Your task to perform on an android device: Play the new Ed Sheeran video on YouTube Image 0: 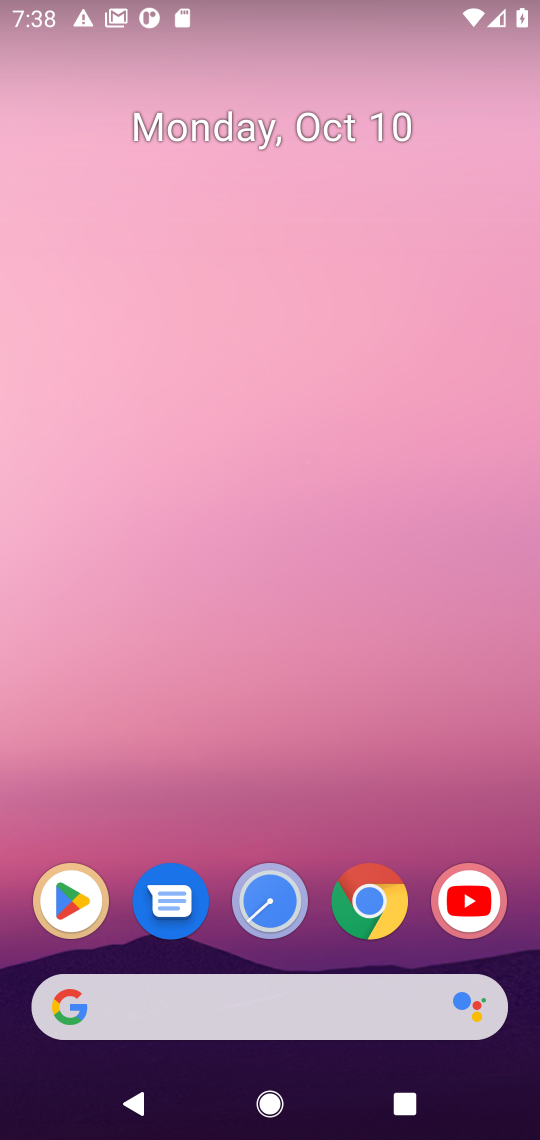
Step 0: drag from (279, 663) to (255, 306)
Your task to perform on an android device: Play the new Ed Sheeran video on YouTube Image 1: 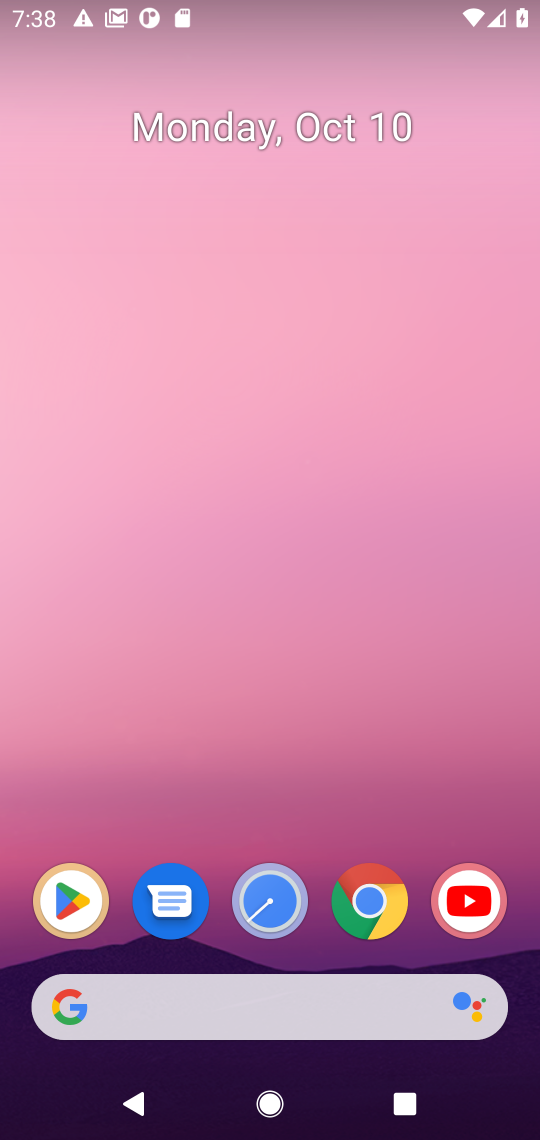
Step 1: drag from (334, 1063) to (236, 120)
Your task to perform on an android device: Play the new Ed Sheeran video on YouTube Image 2: 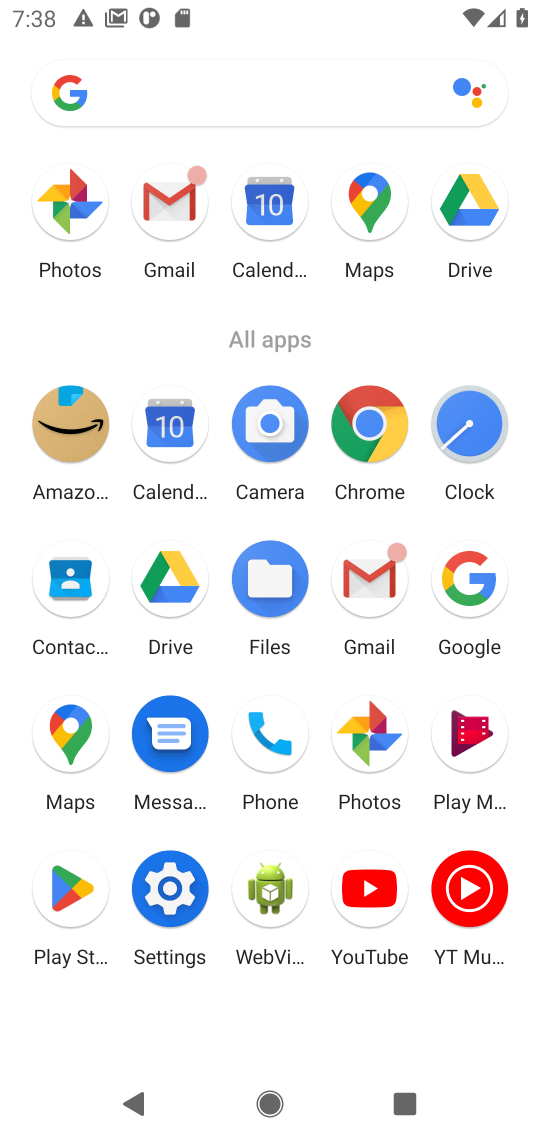
Step 2: click (390, 903)
Your task to perform on an android device: Play the new Ed Sheeran video on YouTube Image 3: 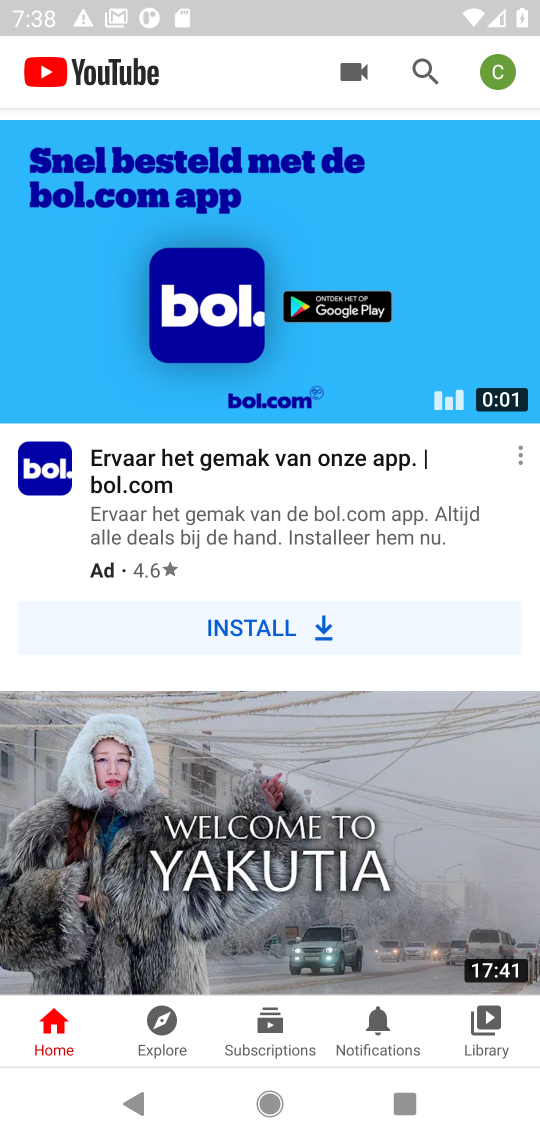
Step 3: type "new Ed Sheeran video"
Your task to perform on an android device: Play the new Ed Sheeran video on YouTube Image 4: 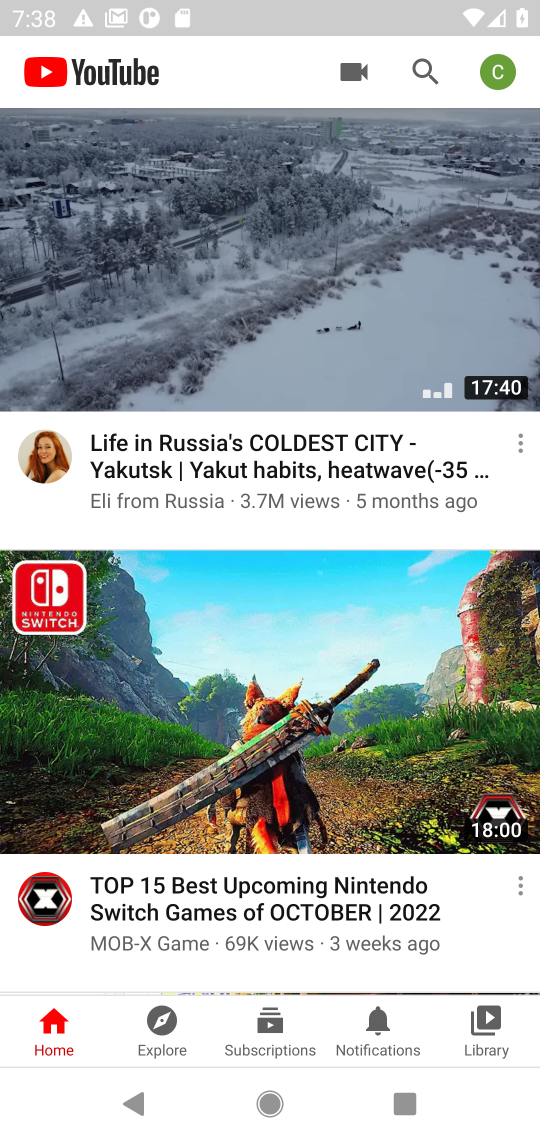
Step 4: click (421, 59)
Your task to perform on an android device: Play the new Ed Sheeran video on YouTube Image 5: 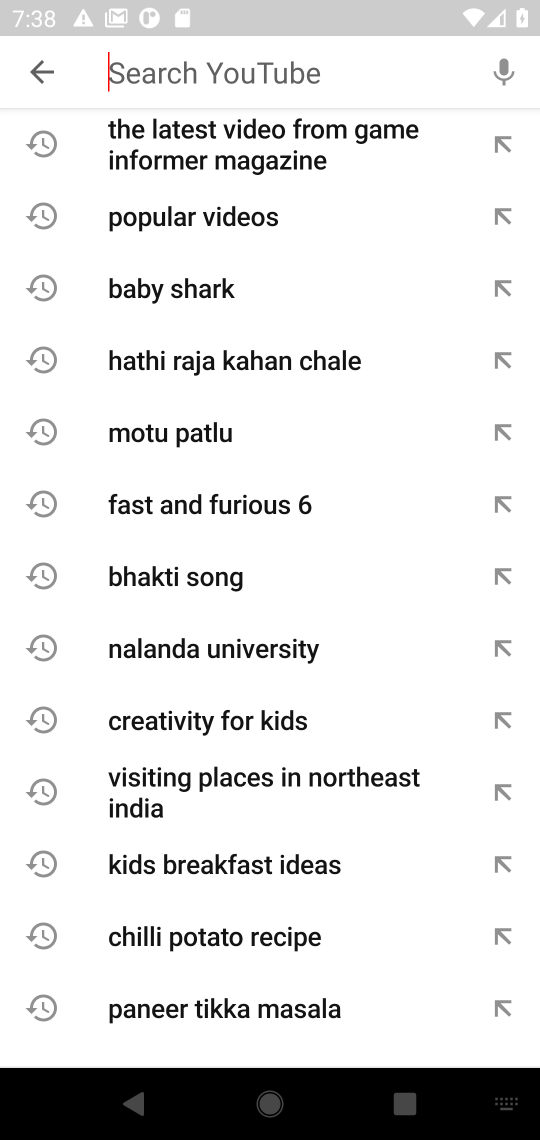
Step 5: type "new Ed Sheeran video"
Your task to perform on an android device: Play the new Ed Sheeran video on YouTube Image 6: 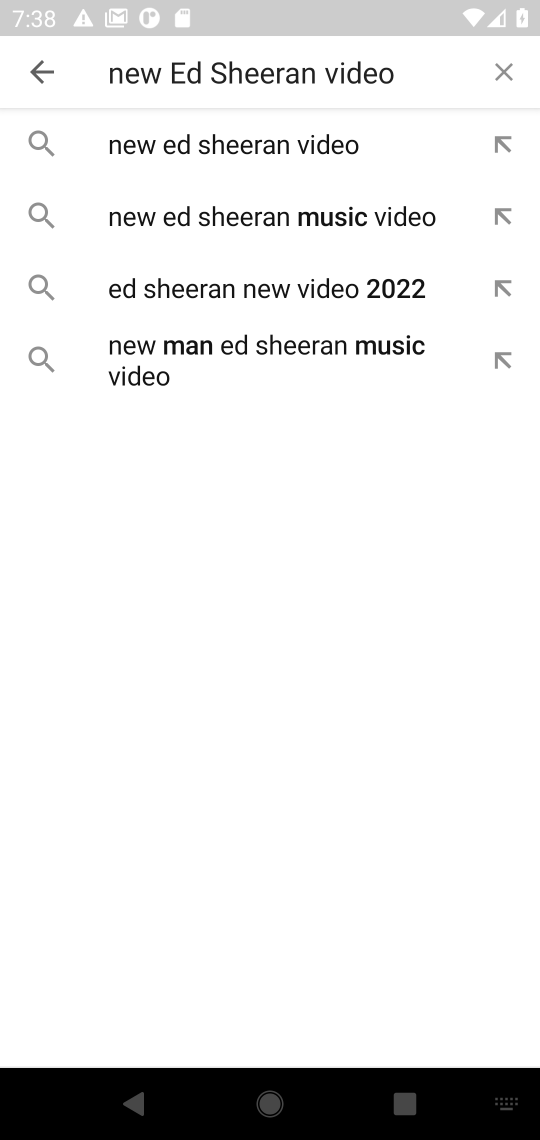
Step 6: type ""
Your task to perform on an android device: Play the new Ed Sheeran video on YouTube Image 7: 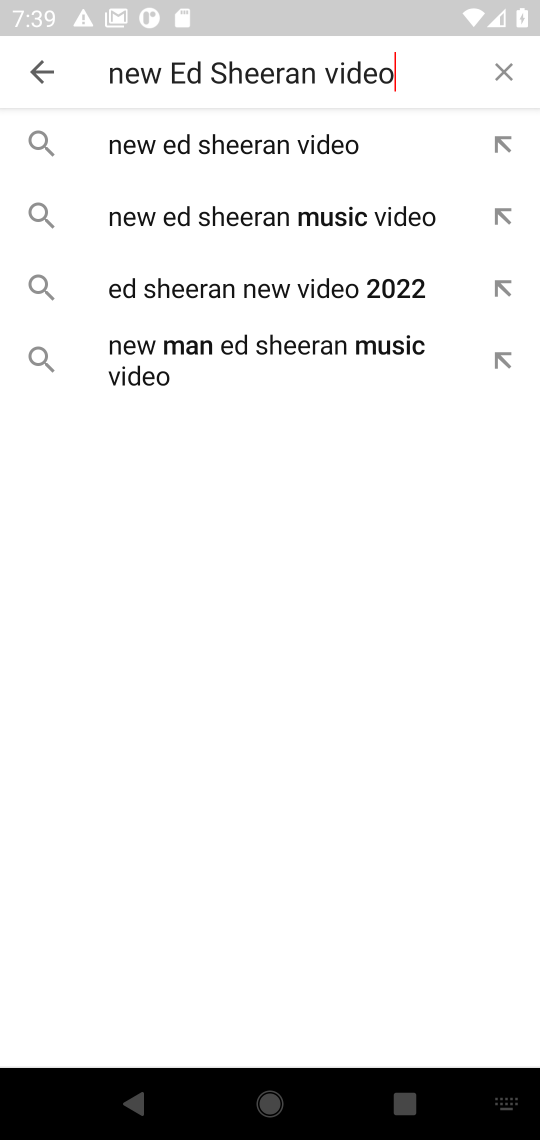
Step 7: click (271, 158)
Your task to perform on an android device: Play the new Ed Sheeran video on YouTube Image 8: 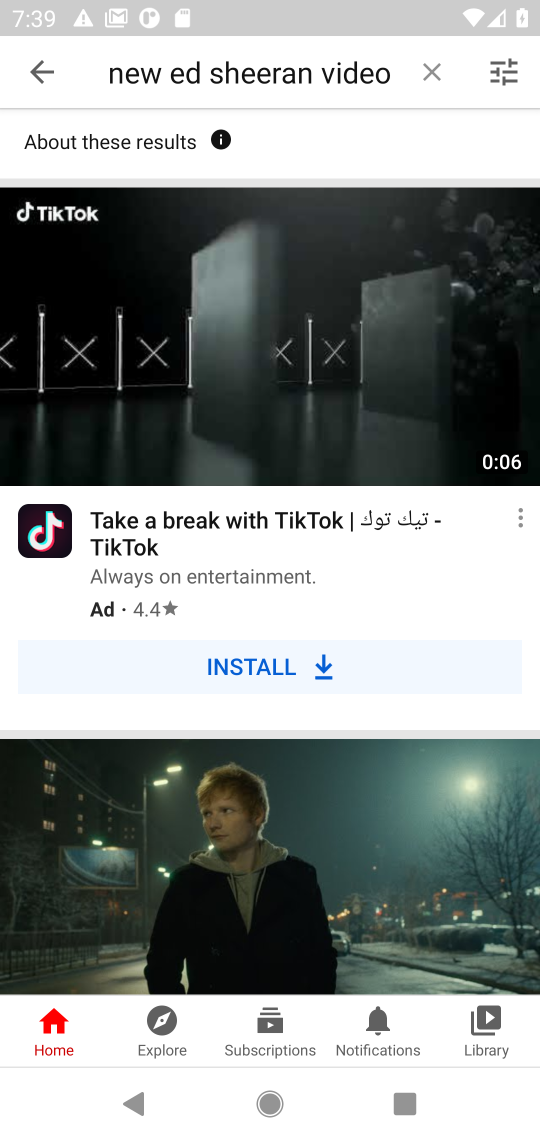
Step 8: drag from (362, 726) to (350, 383)
Your task to perform on an android device: Play the new Ed Sheeran video on YouTube Image 9: 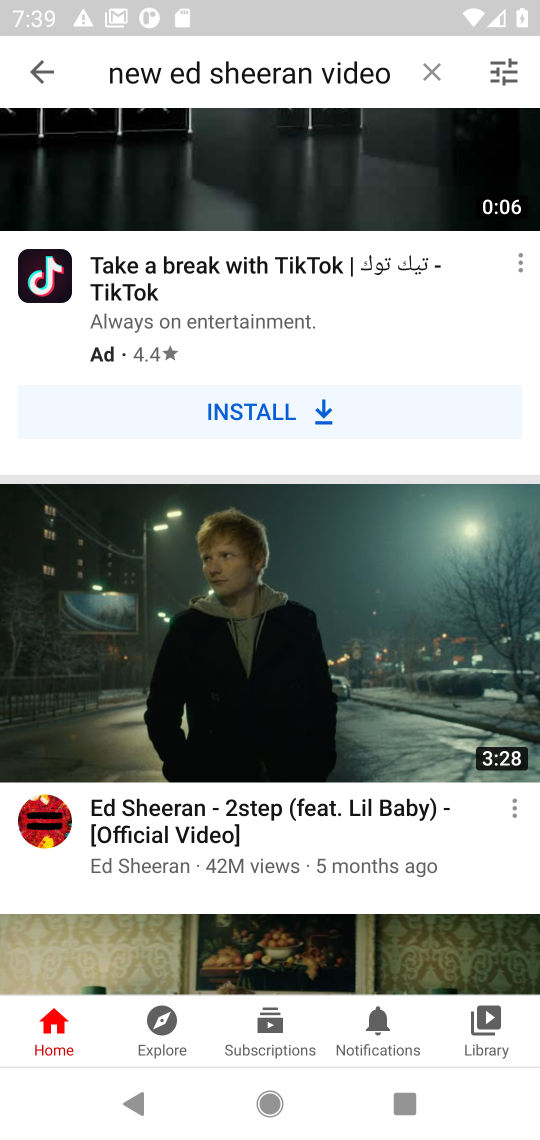
Step 9: click (192, 806)
Your task to perform on an android device: Play the new Ed Sheeran video on YouTube Image 10: 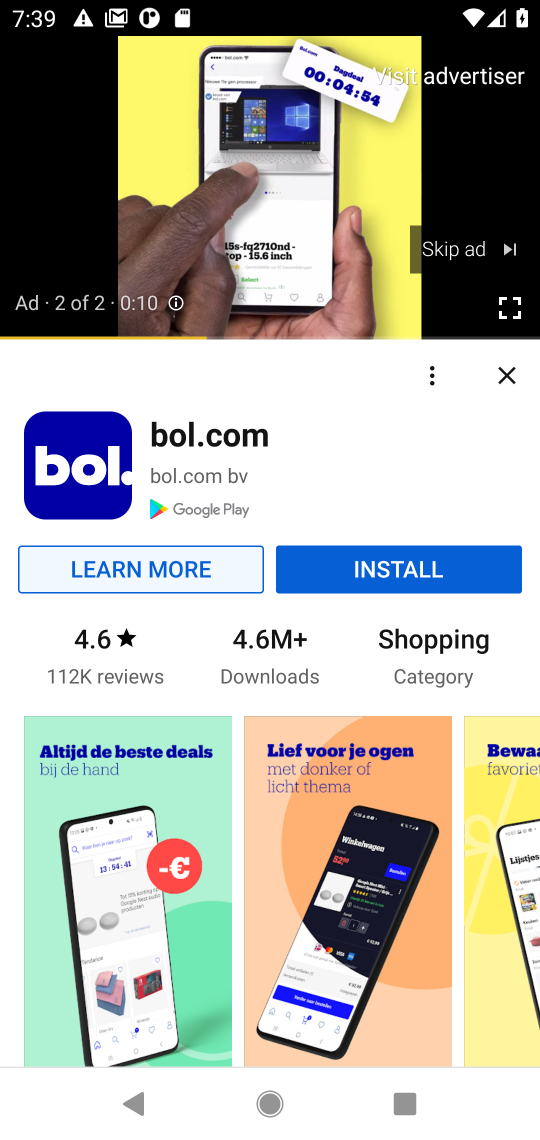
Step 10: drag from (237, 865) to (233, 767)
Your task to perform on an android device: Play the new Ed Sheeran video on YouTube Image 11: 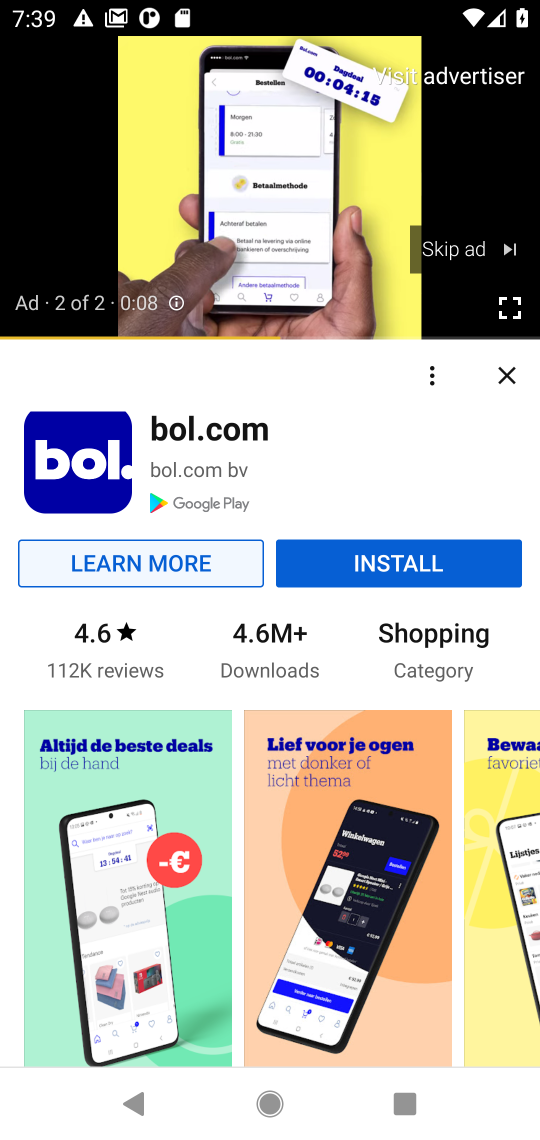
Step 11: click (503, 376)
Your task to perform on an android device: Play the new Ed Sheeran video on YouTube Image 12: 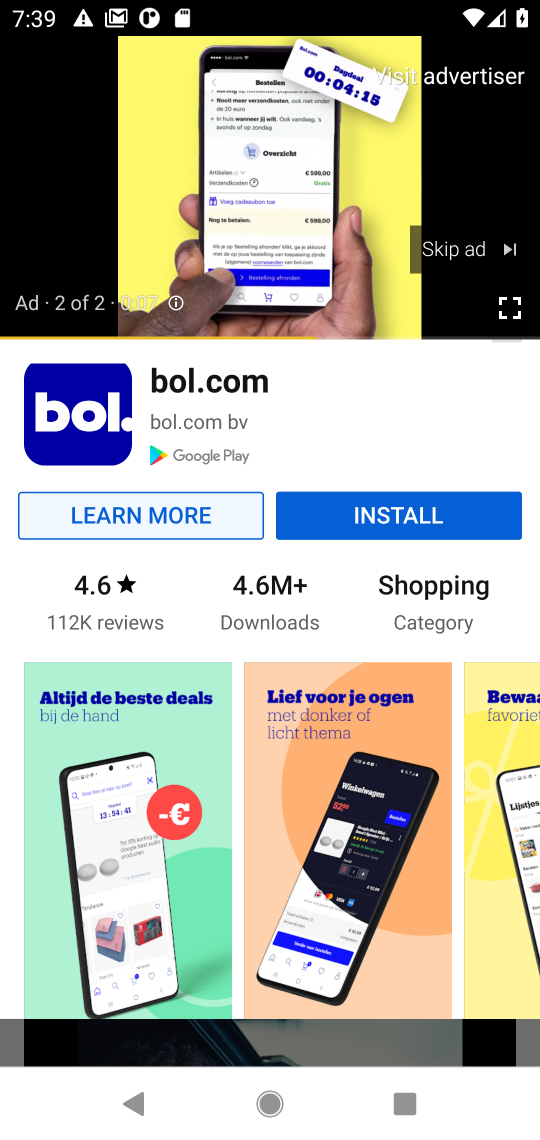
Step 12: click (455, 256)
Your task to perform on an android device: Play the new Ed Sheeran video on YouTube Image 13: 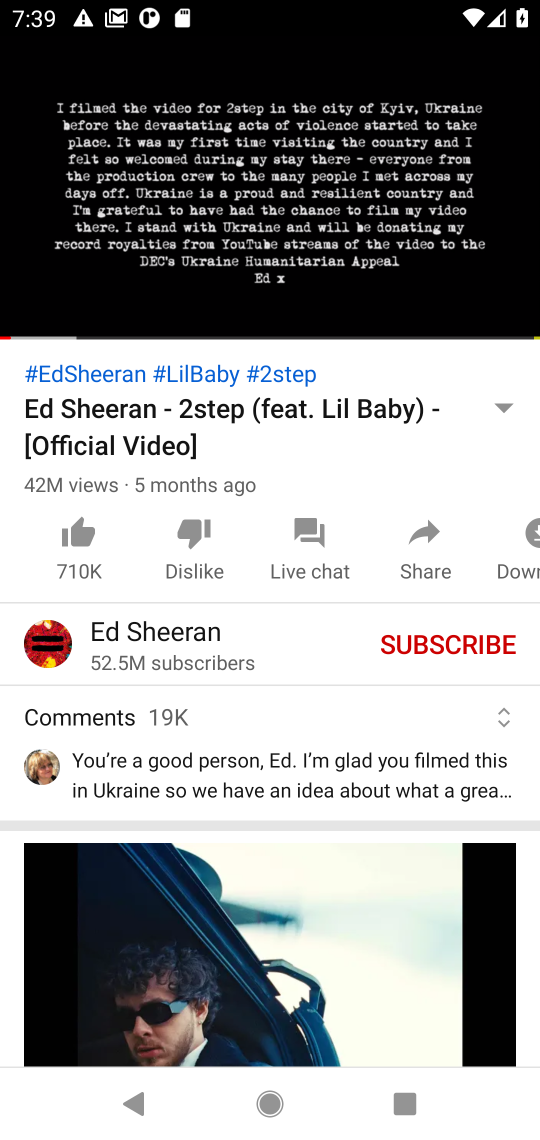
Step 13: click (16, 336)
Your task to perform on an android device: Play the new Ed Sheeran video on YouTube Image 14: 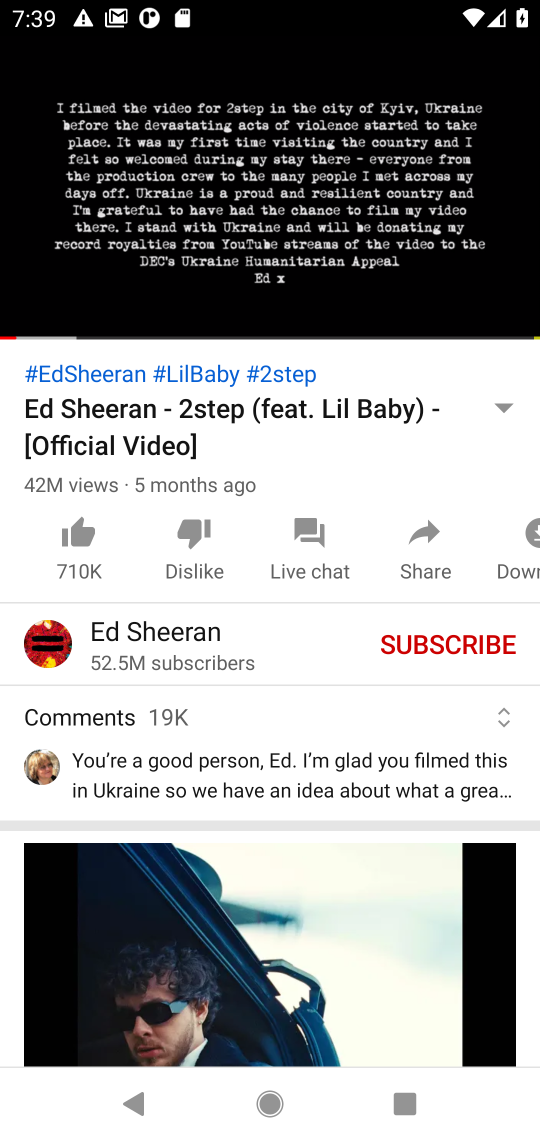
Step 14: click (71, 304)
Your task to perform on an android device: Play the new Ed Sheeran video on YouTube Image 15: 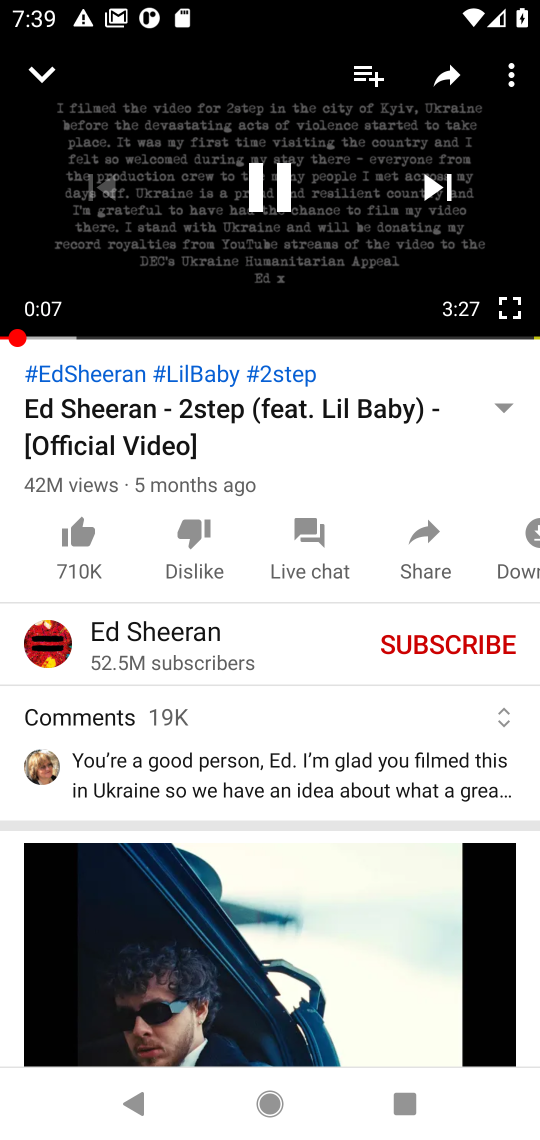
Step 15: click (49, 327)
Your task to perform on an android device: Play the new Ed Sheeran video on YouTube Image 16: 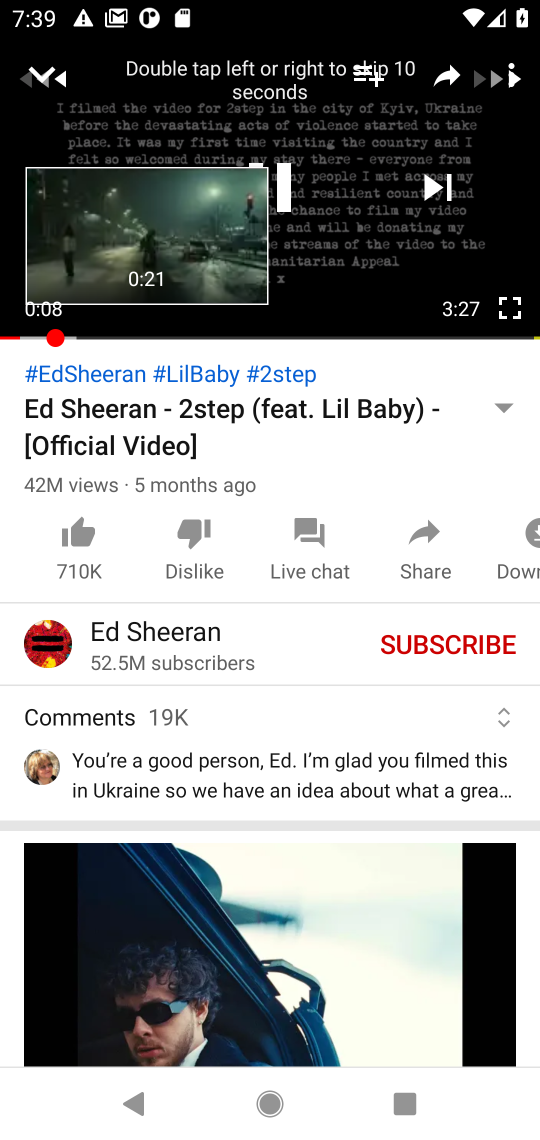
Step 16: click (64, 339)
Your task to perform on an android device: Play the new Ed Sheeran video on YouTube Image 17: 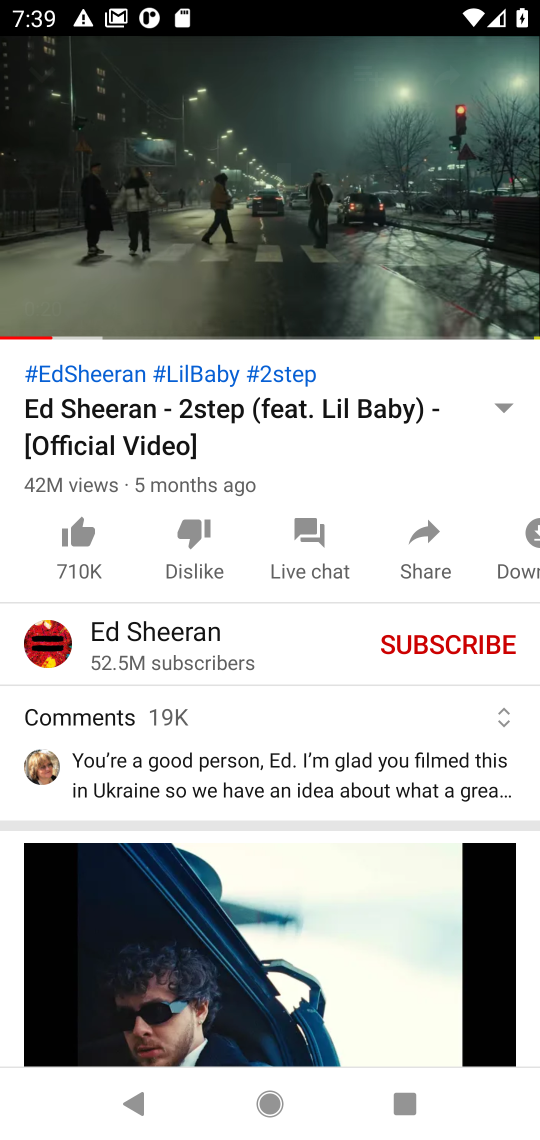
Step 17: click (508, 304)
Your task to perform on an android device: Play the new Ed Sheeran video on YouTube Image 18: 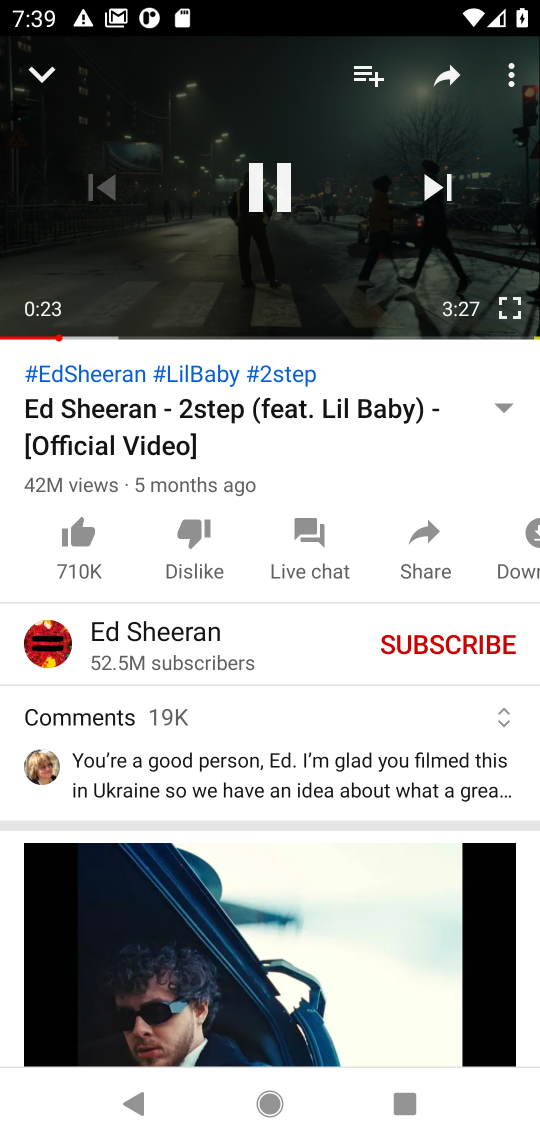
Step 18: click (506, 306)
Your task to perform on an android device: Play the new Ed Sheeran video on YouTube Image 19: 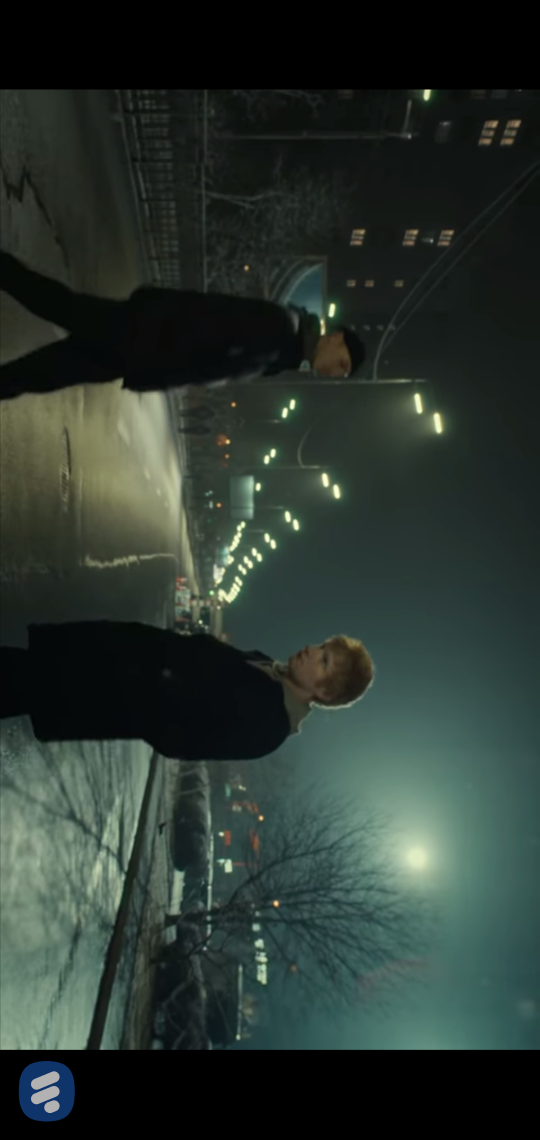
Step 19: click (413, 513)
Your task to perform on an android device: Play the new Ed Sheeran video on YouTube Image 20: 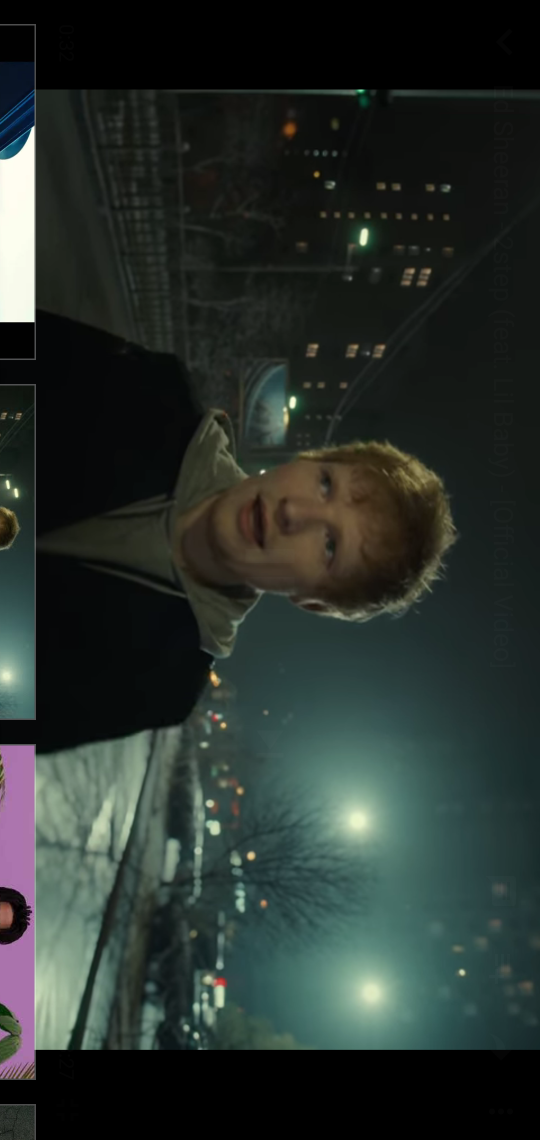
Step 20: click (500, 1111)
Your task to perform on an android device: Play the new Ed Sheeran video on YouTube Image 21: 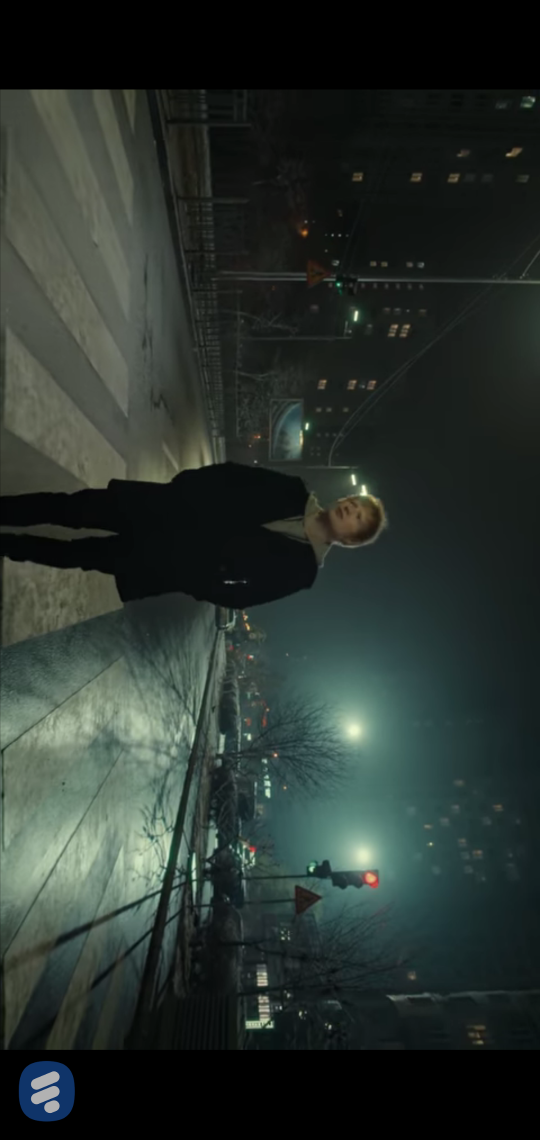
Step 21: click (409, 969)
Your task to perform on an android device: Play the new Ed Sheeran video on YouTube Image 22: 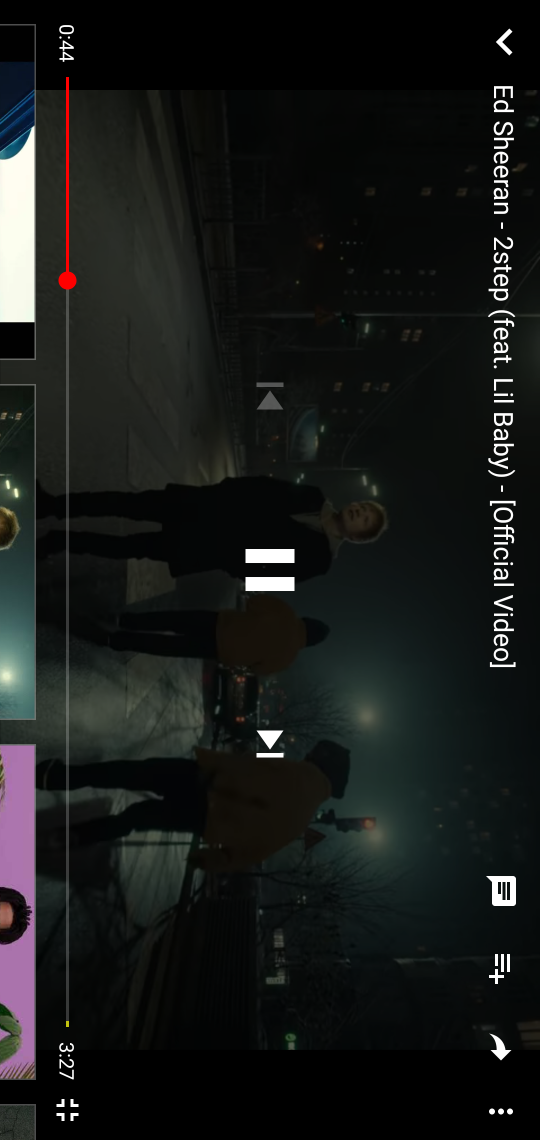
Step 22: click (68, 1107)
Your task to perform on an android device: Play the new Ed Sheeran video on YouTube Image 23: 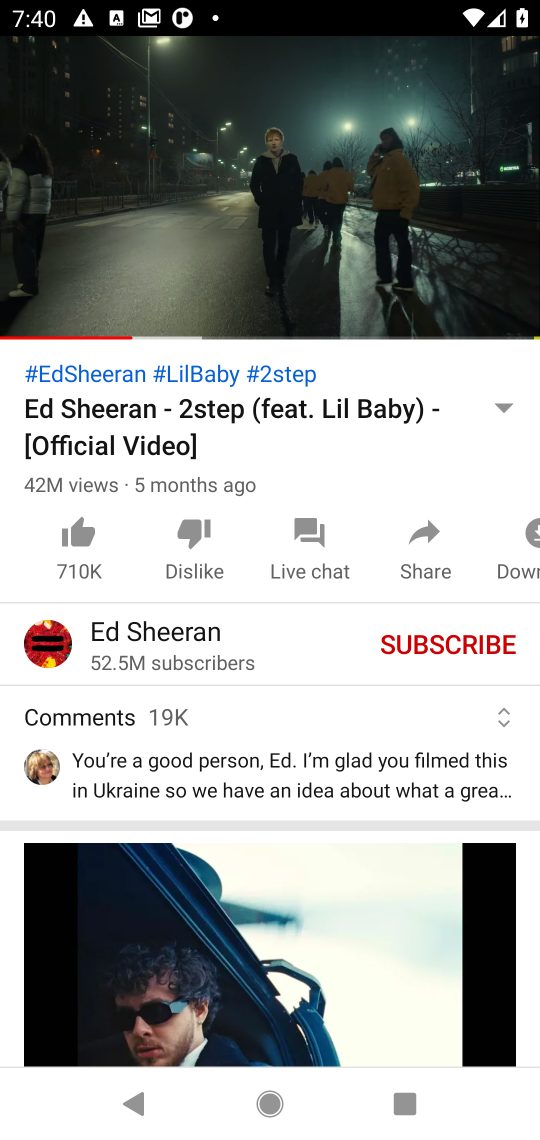
Step 23: click (260, 744)
Your task to perform on an android device: Play the new Ed Sheeran video on YouTube Image 24: 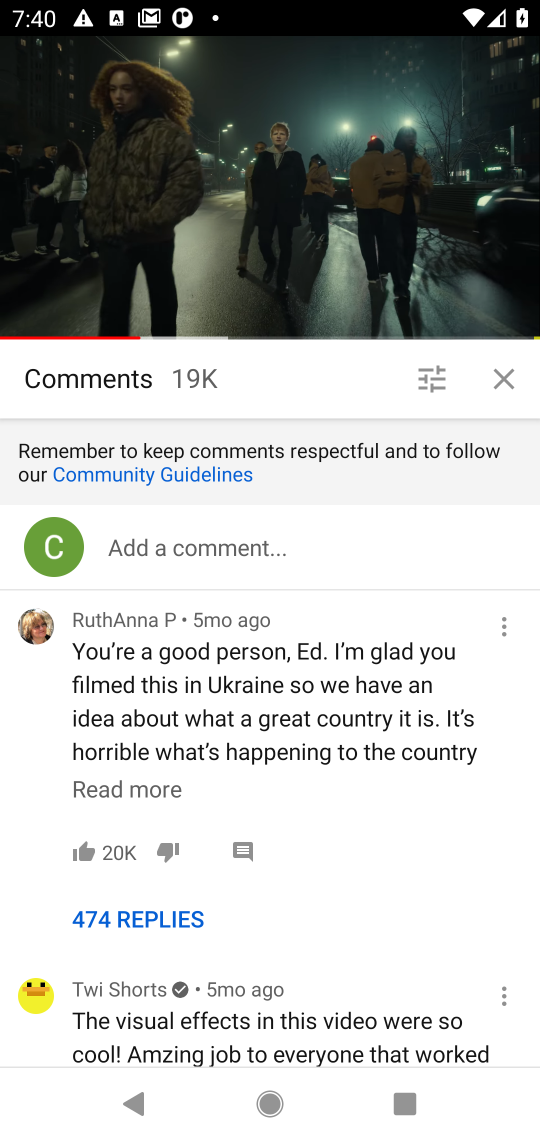
Step 24: drag from (298, 934) to (312, 614)
Your task to perform on an android device: Play the new Ed Sheeran video on YouTube Image 25: 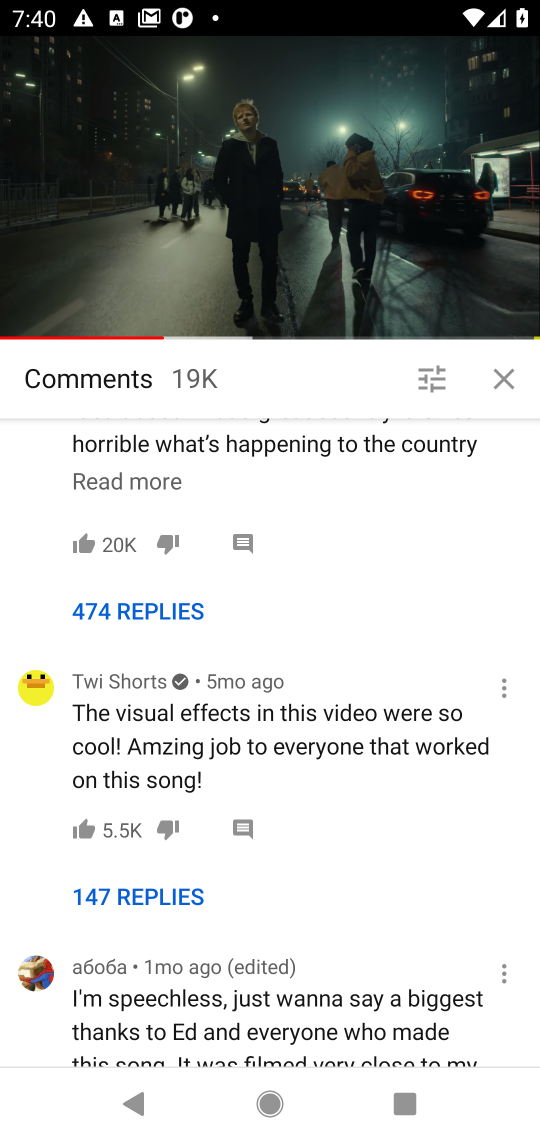
Step 25: drag from (358, 830) to (363, 638)
Your task to perform on an android device: Play the new Ed Sheeran video on YouTube Image 26: 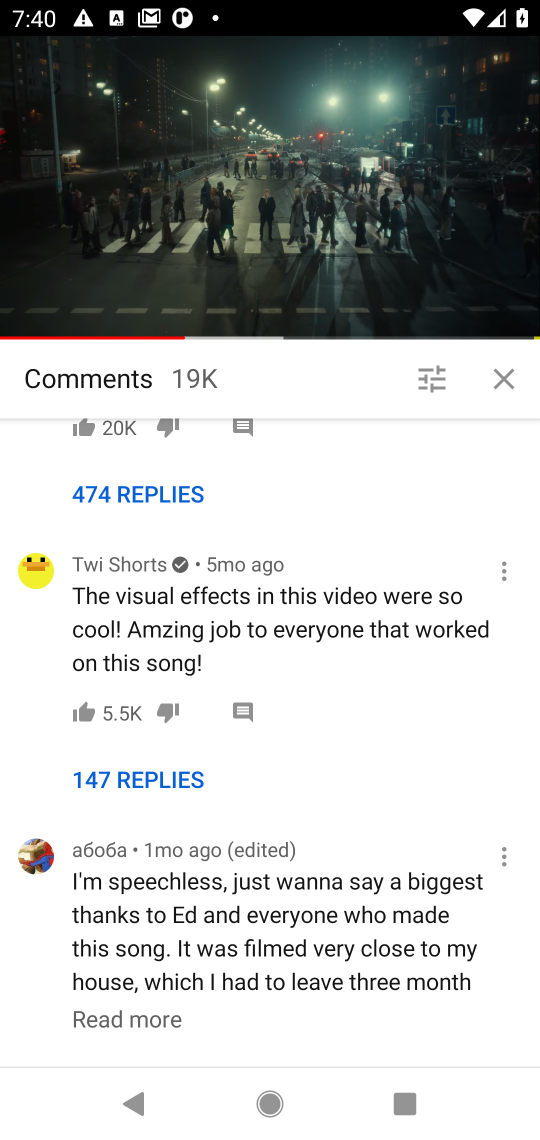
Step 26: drag from (300, 874) to (322, 489)
Your task to perform on an android device: Play the new Ed Sheeran video on YouTube Image 27: 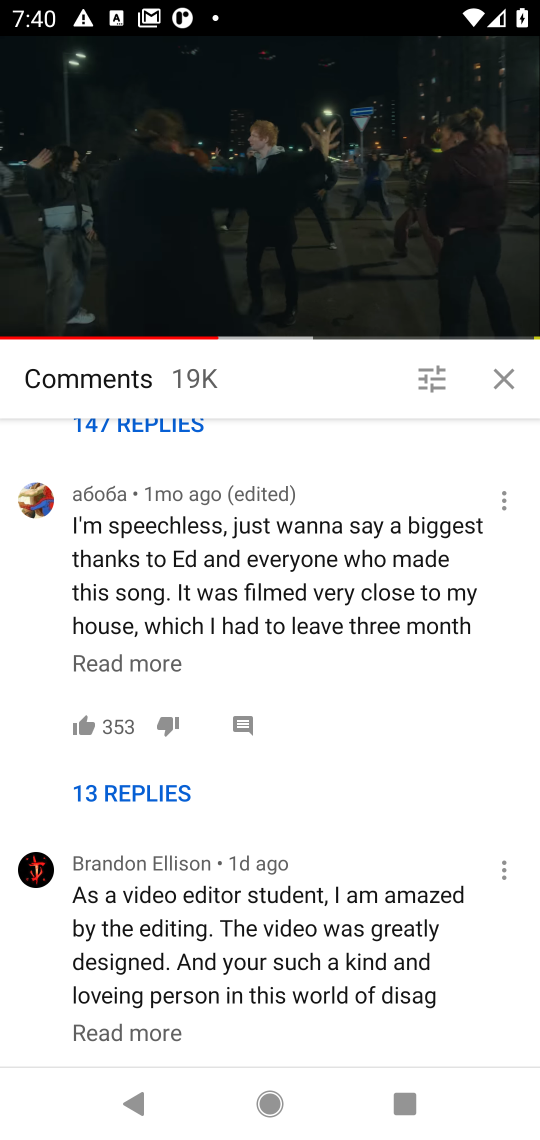
Step 27: click (287, 656)
Your task to perform on an android device: Play the new Ed Sheeran video on YouTube Image 28: 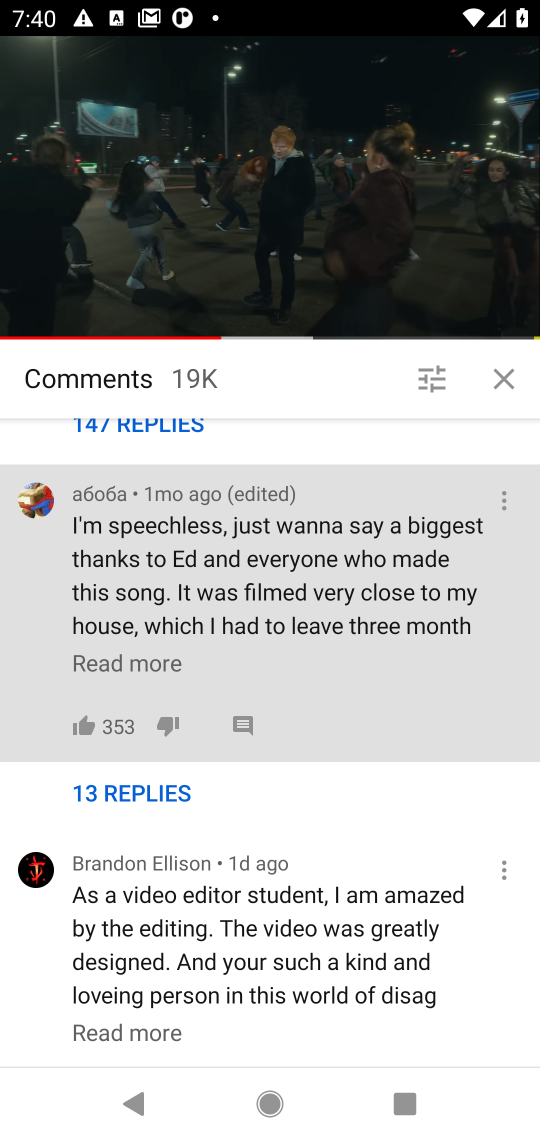
Step 28: click (287, 655)
Your task to perform on an android device: Play the new Ed Sheeran video on YouTube Image 29: 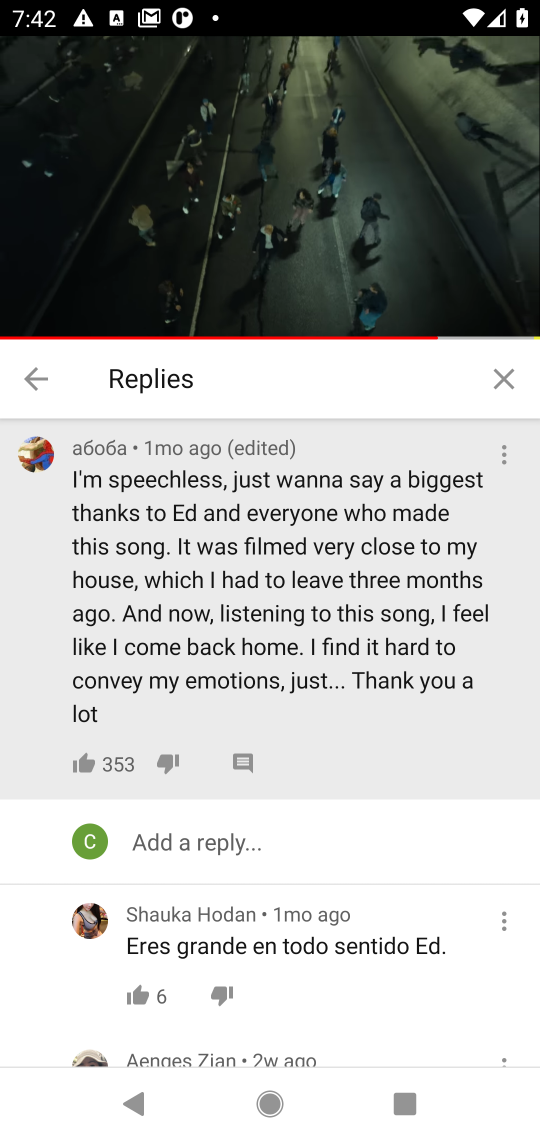
Step 29: task complete